Your task to perform on an android device: Open Google Chrome Image 0: 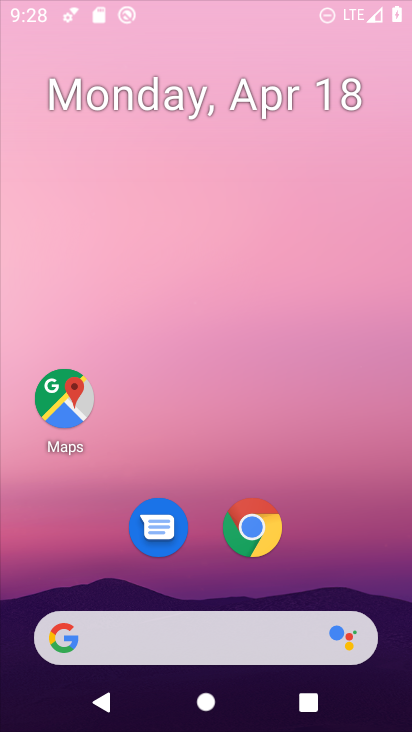
Step 0: drag from (310, 501) to (263, 63)
Your task to perform on an android device: Open Google Chrome Image 1: 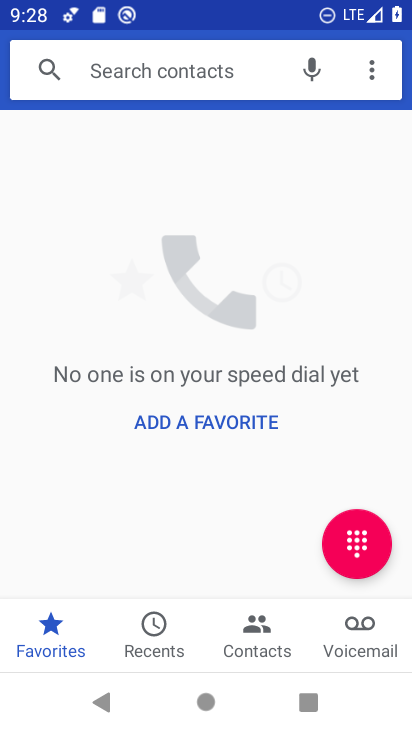
Step 1: press back button
Your task to perform on an android device: Open Google Chrome Image 2: 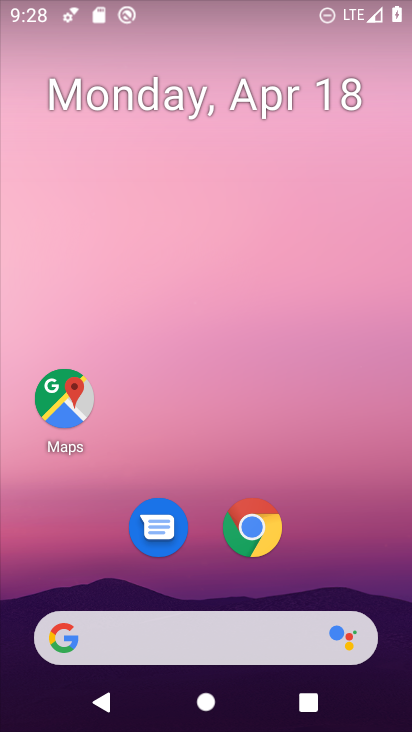
Step 2: click (251, 524)
Your task to perform on an android device: Open Google Chrome Image 3: 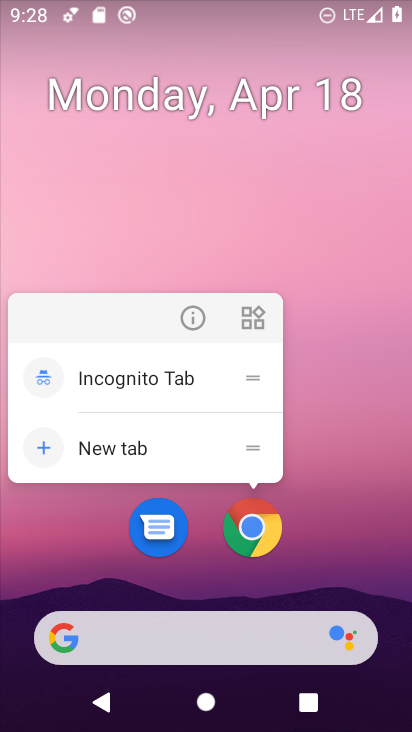
Step 3: click (249, 518)
Your task to perform on an android device: Open Google Chrome Image 4: 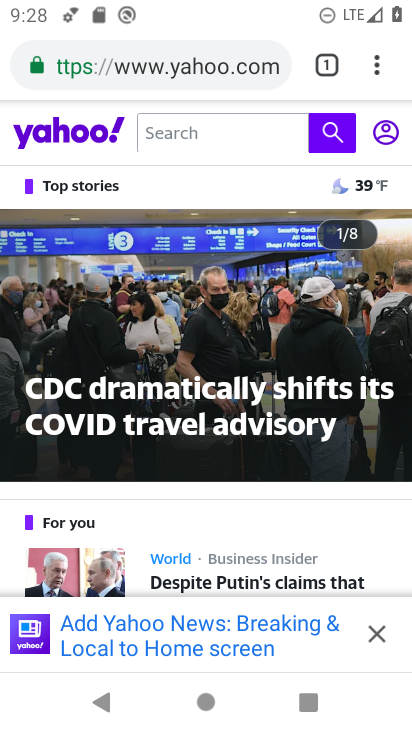
Step 4: task complete